Your task to perform on an android device: Search for Mexican restaurants on Maps Image 0: 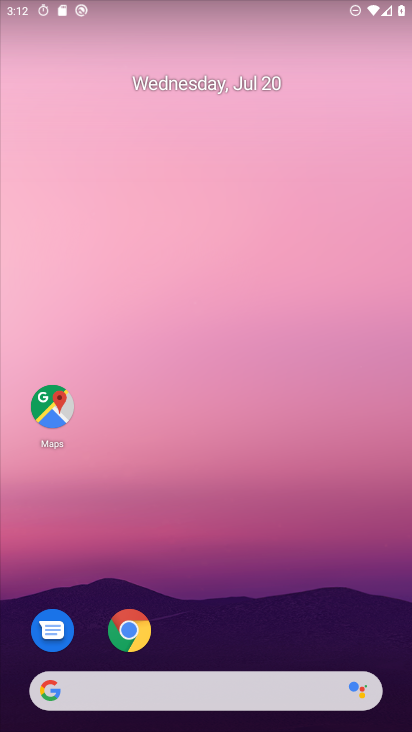
Step 0: drag from (293, 702) to (253, 285)
Your task to perform on an android device: Search for Mexican restaurants on Maps Image 1: 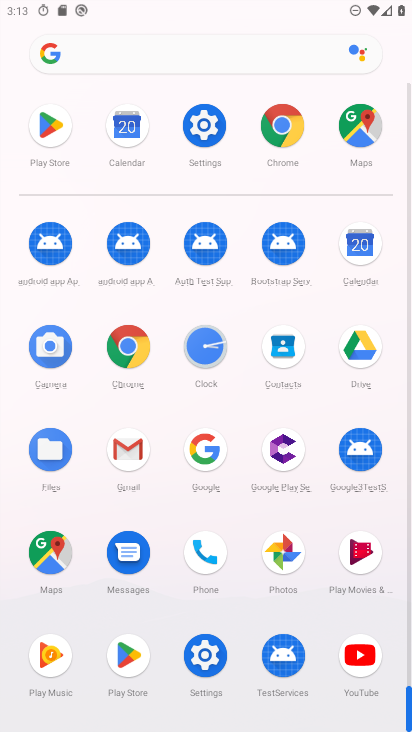
Step 1: click (53, 559)
Your task to perform on an android device: Search for Mexican restaurants on Maps Image 2: 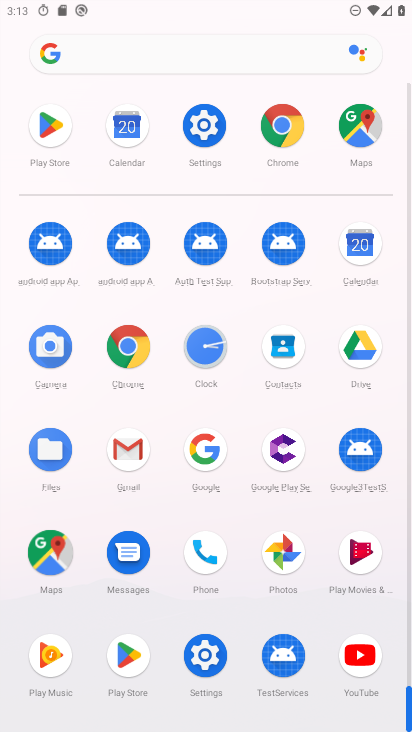
Step 2: click (52, 558)
Your task to perform on an android device: Search for Mexican restaurants on Maps Image 3: 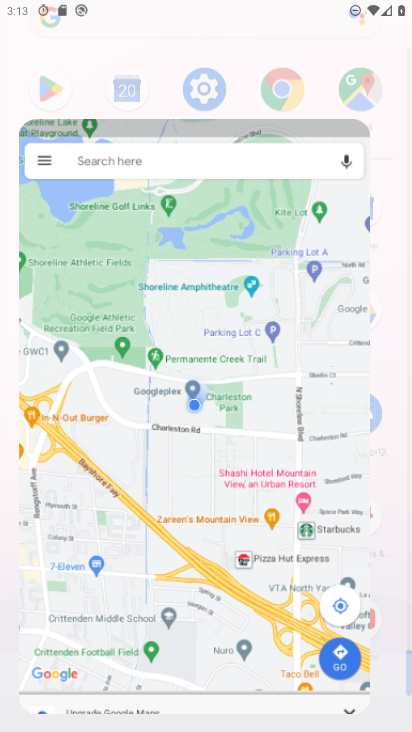
Step 3: click (52, 558)
Your task to perform on an android device: Search for Mexican restaurants on Maps Image 4: 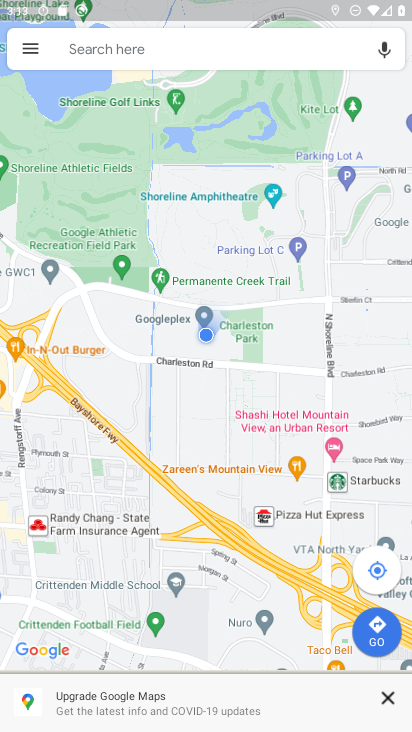
Step 4: drag from (78, 43) to (120, 53)
Your task to perform on an android device: Search for Mexican restaurants on Maps Image 5: 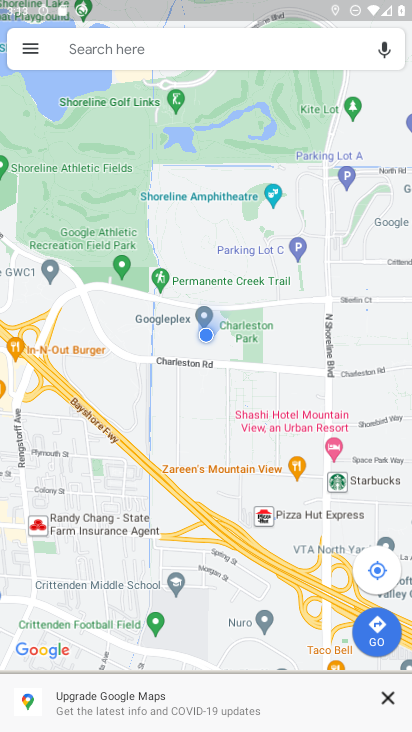
Step 5: click (126, 52)
Your task to perform on an android device: Search for Mexican restaurants on Maps Image 6: 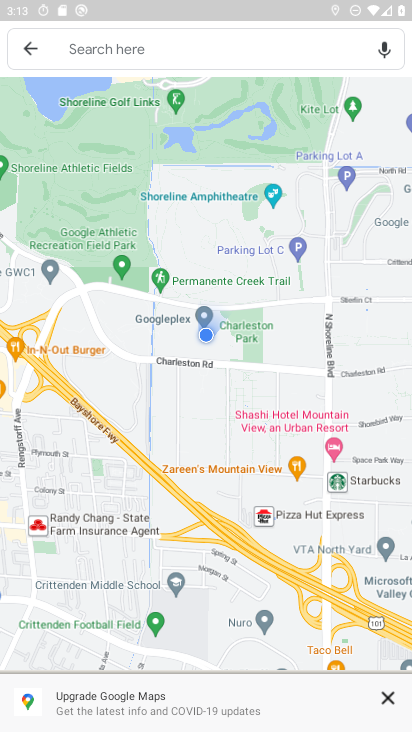
Step 6: click (150, 44)
Your task to perform on an android device: Search for Mexican restaurants on Maps Image 7: 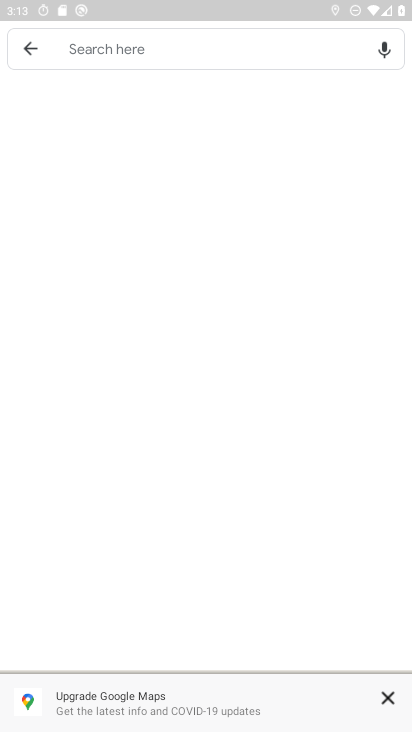
Step 7: click (112, 43)
Your task to perform on an android device: Search for Mexican restaurants on Maps Image 8: 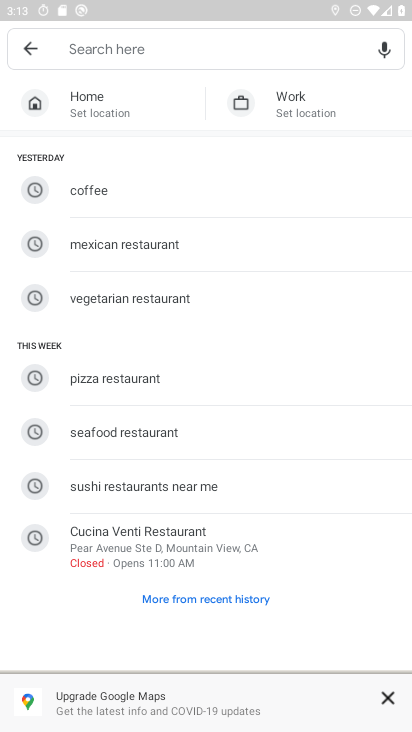
Step 8: click (107, 45)
Your task to perform on an android device: Search for Mexican restaurants on Maps Image 9: 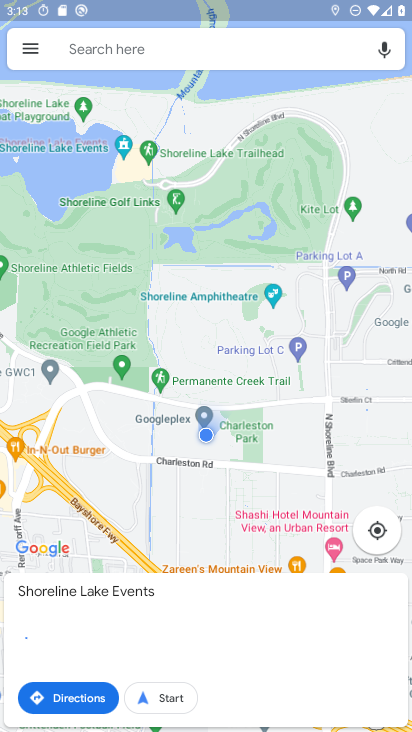
Step 9: click (94, 45)
Your task to perform on an android device: Search for Mexican restaurants on Maps Image 10: 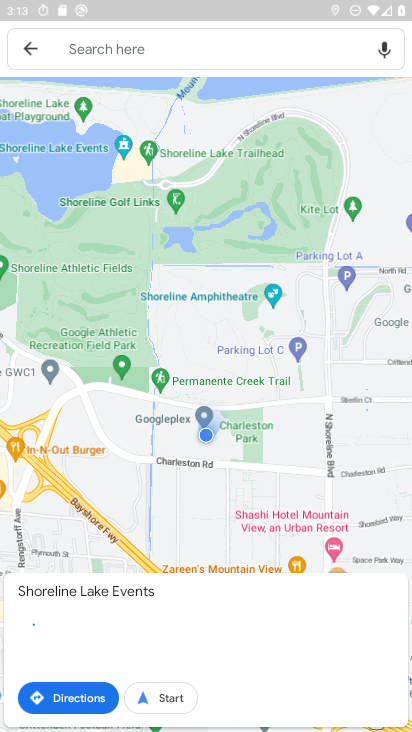
Step 10: click (94, 45)
Your task to perform on an android device: Search for Mexican restaurants on Maps Image 11: 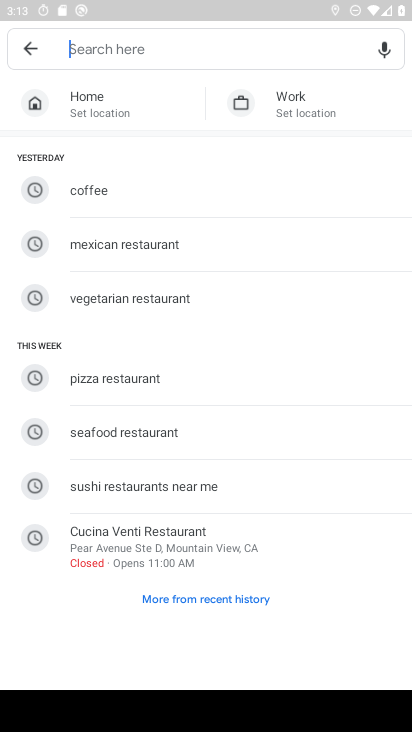
Step 11: click (94, 45)
Your task to perform on an android device: Search for Mexican restaurants on Maps Image 12: 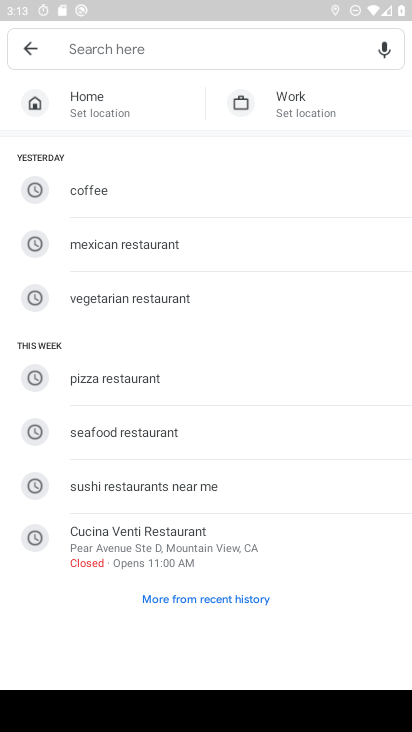
Step 12: click (151, 245)
Your task to perform on an android device: Search for Mexican restaurants on Maps Image 13: 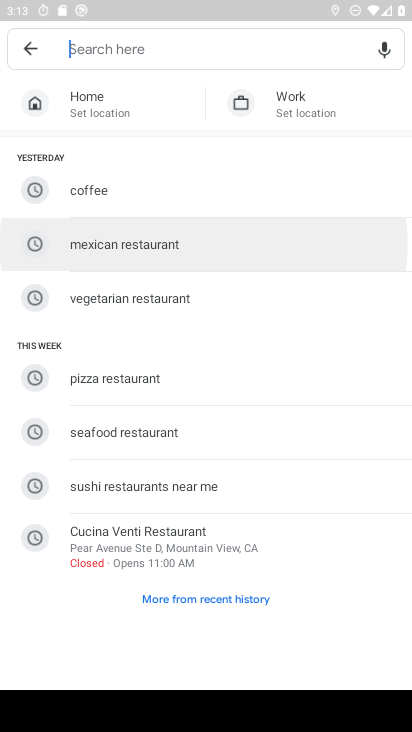
Step 13: click (151, 245)
Your task to perform on an android device: Search for Mexican restaurants on Maps Image 14: 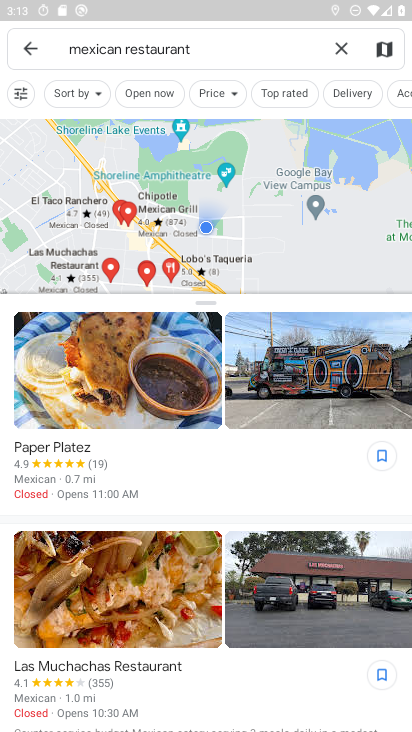
Step 14: press back button
Your task to perform on an android device: Search for Mexican restaurants on Maps Image 15: 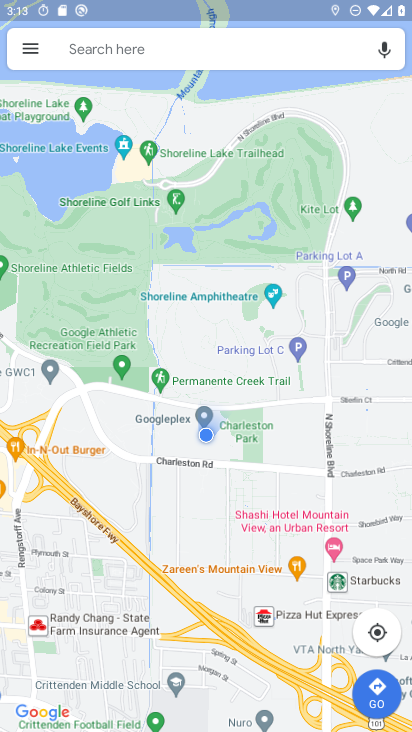
Step 15: click (100, 51)
Your task to perform on an android device: Search for Mexican restaurants on Maps Image 16: 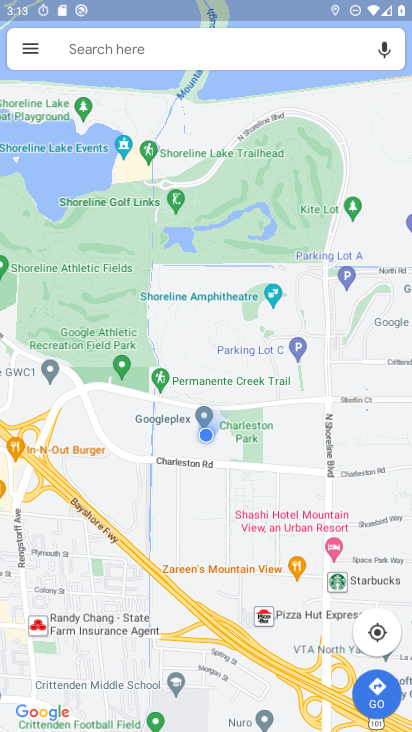
Step 16: click (99, 51)
Your task to perform on an android device: Search for Mexican restaurants on Maps Image 17: 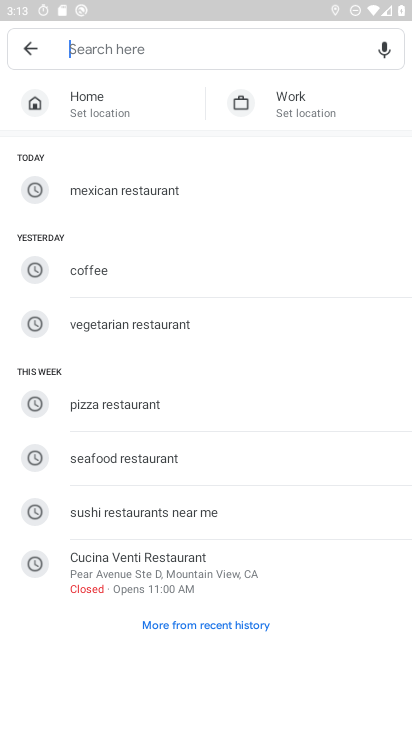
Step 17: click (99, 51)
Your task to perform on an android device: Search for Mexican restaurants on Maps Image 18: 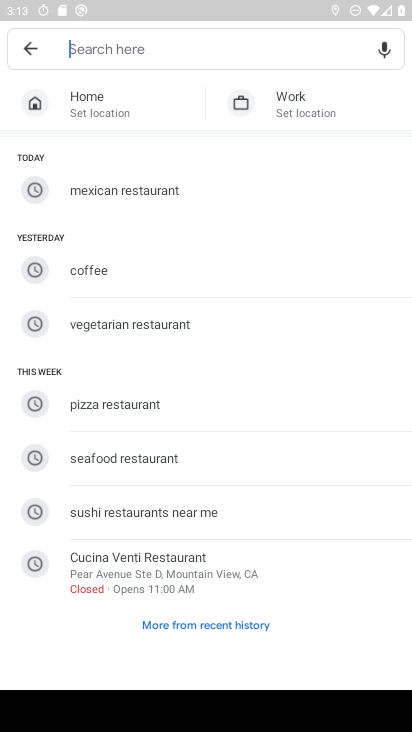
Step 18: click (132, 189)
Your task to perform on an android device: Search for Mexican restaurants on Maps Image 19: 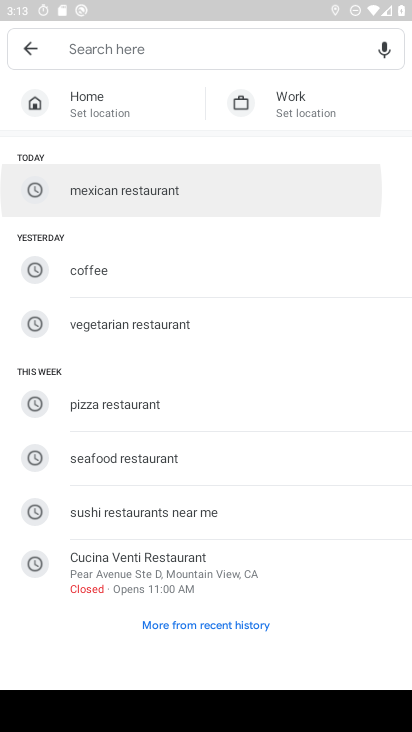
Step 19: click (132, 187)
Your task to perform on an android device: Search for Mexican restaurants on Maps Image 20: 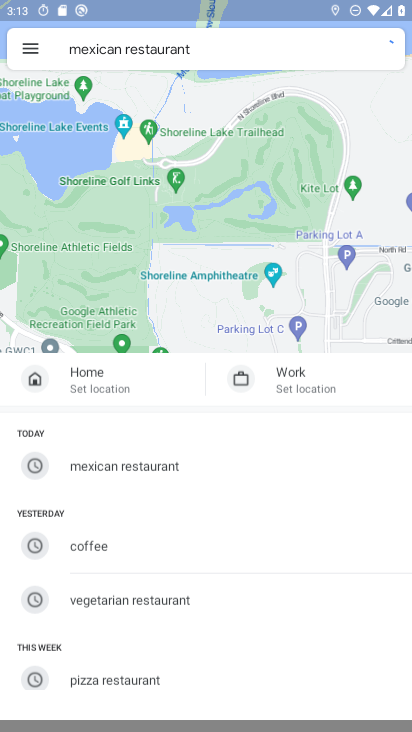
Step 20: click (134, 188)
Your task to perform on an android device: Search for Mexican restaurants on Maps Image 21: 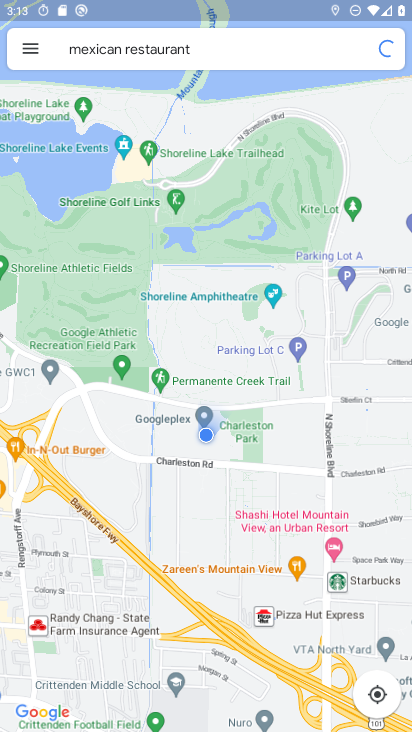
Step 21: task complete